Your task to perform on an android device: Add usb-a to the cart on target.com, then select checkout. Image 0: 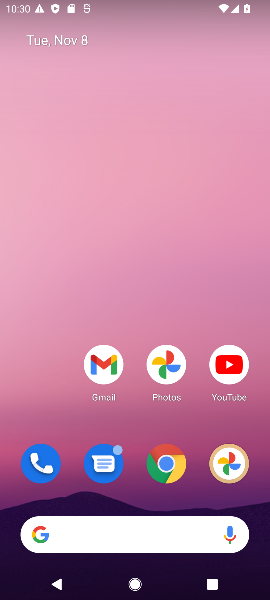
Step 0: click (164, 462)
Your task to perform on an android device: Add usb-a to the cart on target.com, then select checkout. Image 1: 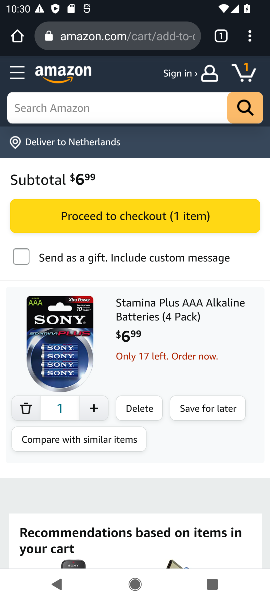
Step 1: click (173, 44)
Your task to perform on an android device: Add usb-a to the cart on target.com, then select checkout. Image 2: 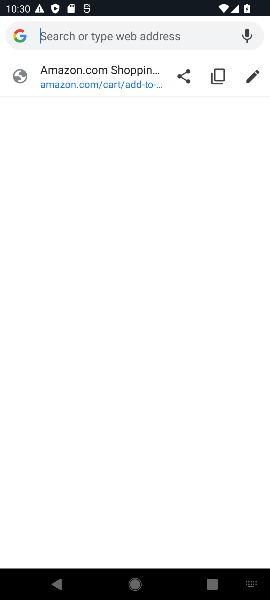
Step 2: type "target.com"
Your task to perform on an android device: Add usb-a to the cart on target.com, then select checkout. Image 3: 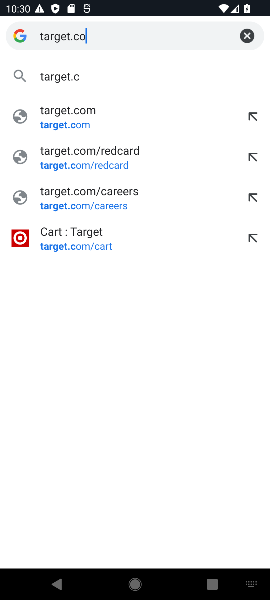
Step 3: press enter
Your task to perform on an android device: Add usb-a to the cart on target.com, then select checkout. Image 4: 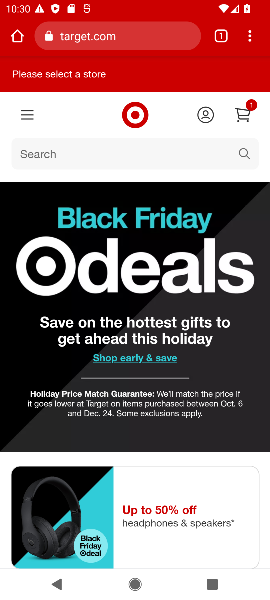
Step 4: click (242, 152)
Your task to perform on an android device: Add usb-a to the cart on target.com, then select checkout. Image 5: 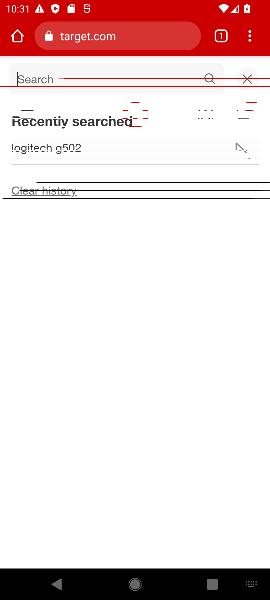
Step 5: type "usb-a"
Your task to perform on an android device: Add usb-a to the cart on target.com, then select checkout. Image 6: 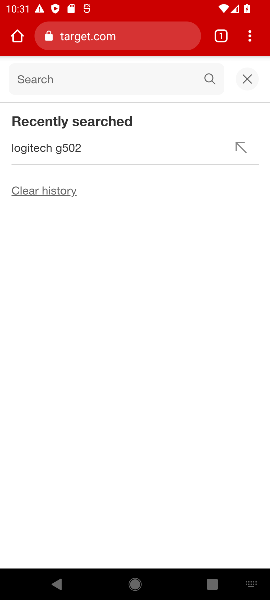
Step 6: press enter
Your task to perform on an android device: Add usb-a to the cart on target.com, then select checkout. Image 7: 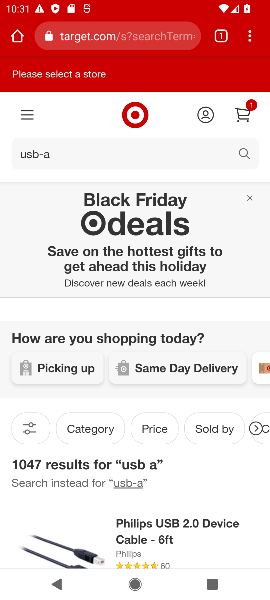
Step 7: drag from (199, 482) to (205, 280)
Your task to perform on an android device: Add usb-a to the cart on target.com, then select checkout. Image 8: 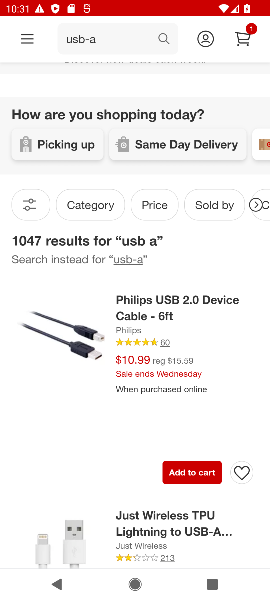
Step 8: drag from (229, 511) to (219, 317)
Your task to perform on an android device: Add usb-a to the cart on target.com, then select checkout. Image 9: 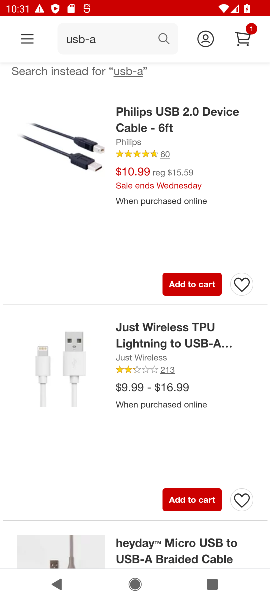
Step 9: click (67, 355)
Your task to perform on an android device: Add usb-a to the cart on target.com, then select checkout. Image 10: 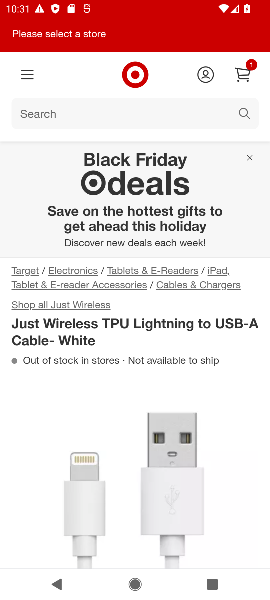
Step 10: drag from (132, 397) to (170, 142)
Your task to perform on an android device: Add usb-a to the cart on target.com, then select checkout. Image 11: 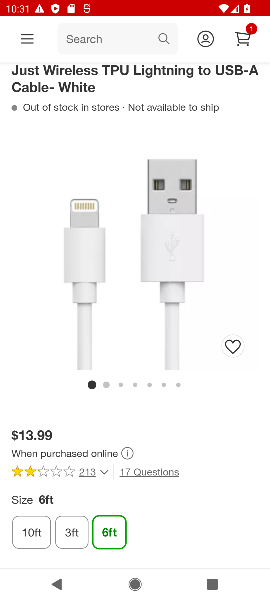
Step 11: drag from (194, 456) to (207, 260)
Your task to perform on an android device: Add usb-a to the cart on target.com, then select checkout. Image 12: 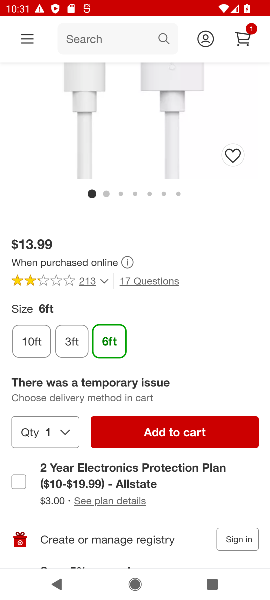
Step 12: click (186, 421)
Your task to perform on an android device: Add usb-a to the cart on target.com, then select checkout. Image 13: 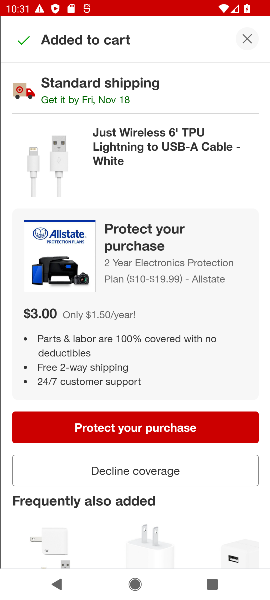
Step 13: click (249, 34)
Your task to perform on an android device: Add usb-a to the cart on target.com, then select checkout. Image 14: 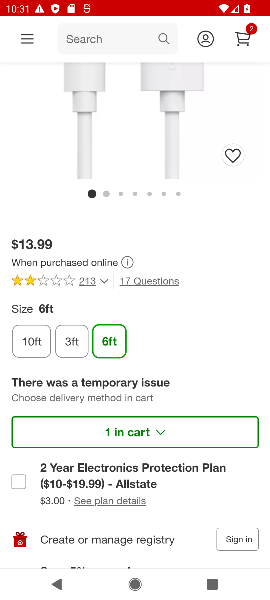
Step 14: click (249, 34)
Your task to perform on an android device: Add usb-a to the cart on target.com, then select checkout. Image 15: 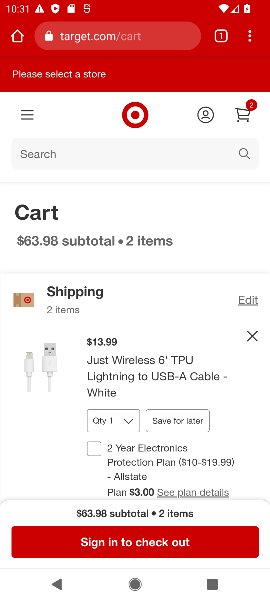
Step 15: click (165, 543)
Your task to perform on an android device: Add usb-a to the cart on target.com, then select checkout. Image 16: 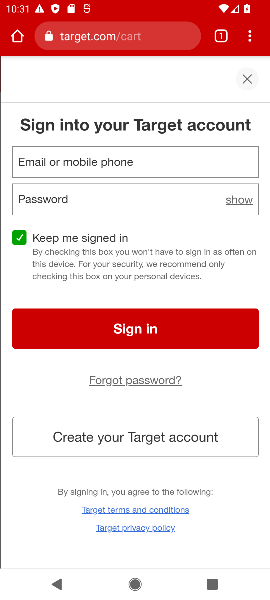
Step 16: task complete